Your task to perform on an android device: Open Yahoo.com Image 0: 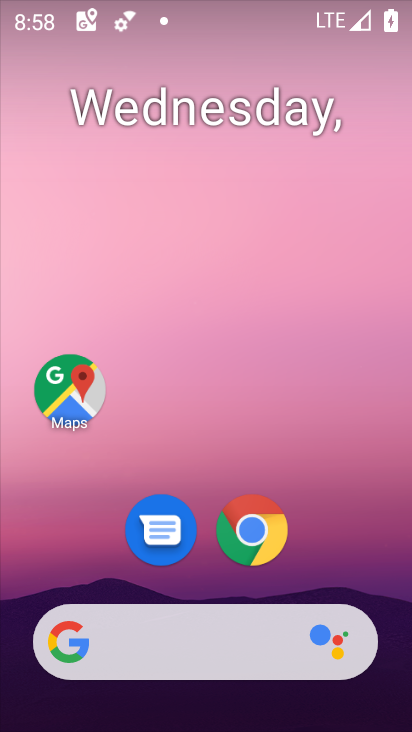
Step 0: drag from (401, 664) to (297, 125)
Your task to perform on an android device: Open Yahoo.com Image 1: 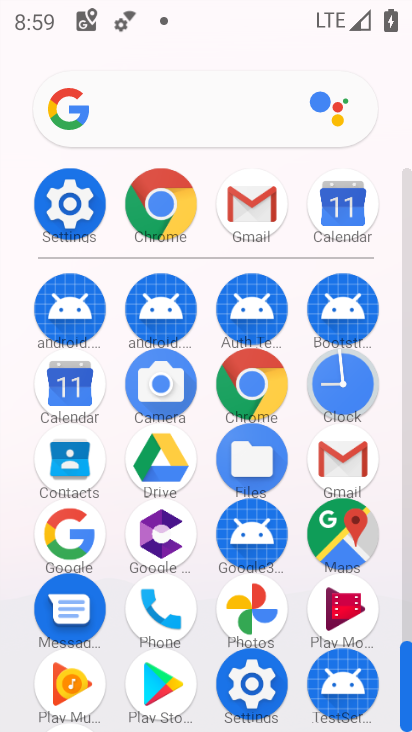
Step 1: click (235, 372)
Your task to perform on an android device: Open Yahoo.com Image 2: 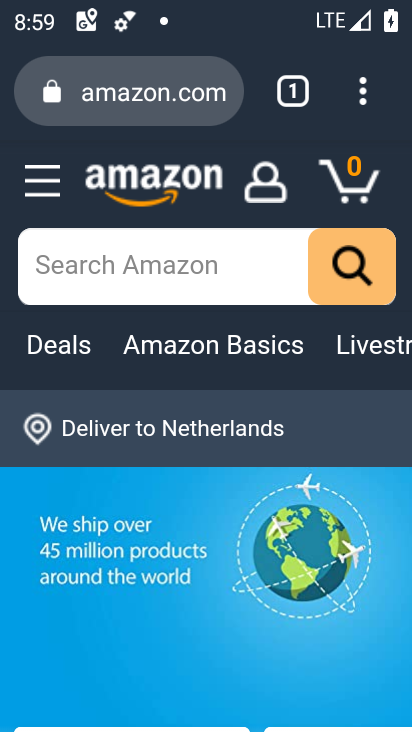
Step 2: press back button
Your task to perform on an android device: Open Yahoo.com Image 3: 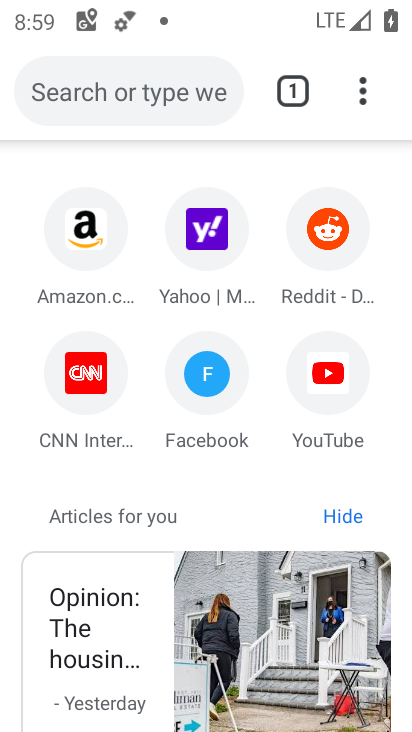
Step 3: click (202, 234)
Your task to perform on an android device: Open Yahoo.com Image 4: 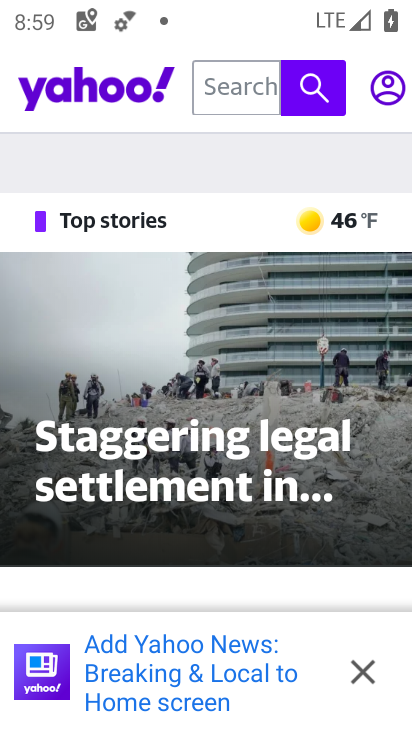
Step 4: task complete